Your task to perform on an android device: search for starred emails in the gmail app Image 0: 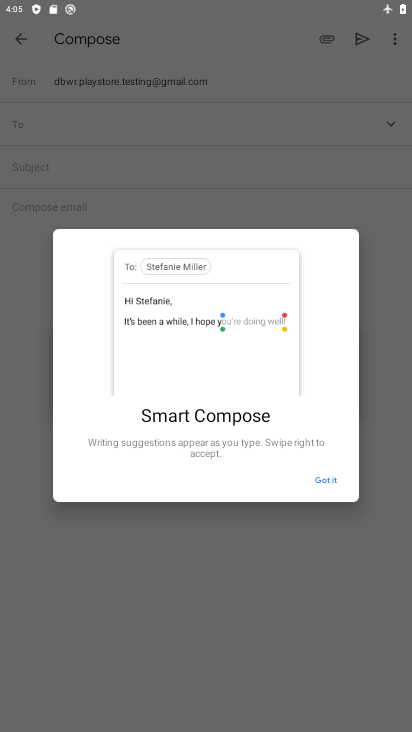
Step 0: press back button
Your task to perform on an android device: search for starred emails in the gmail app Image 1: 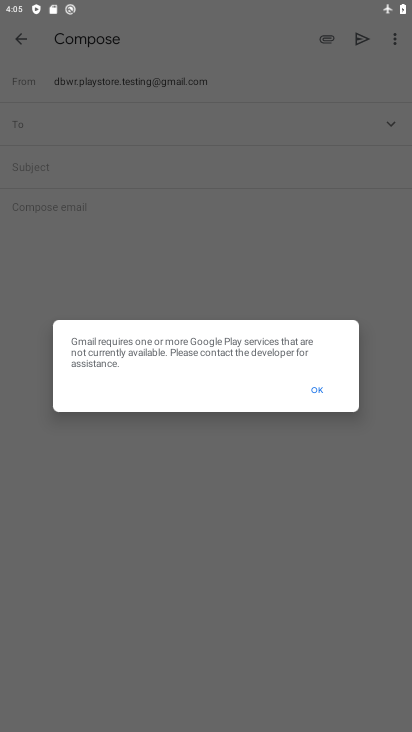
Step 1: press back button
Your task to perform on an android device: search for starred emails in the gmail app Image 2: 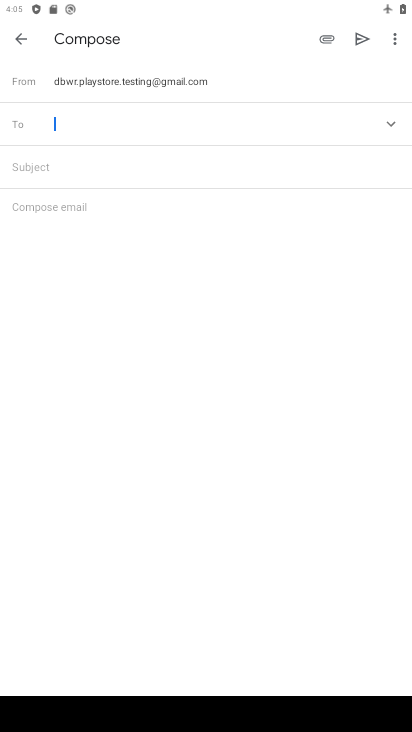
Step 2: press home button
Your task to perform on an android device: search for starred emails in the gmail app Image 3: 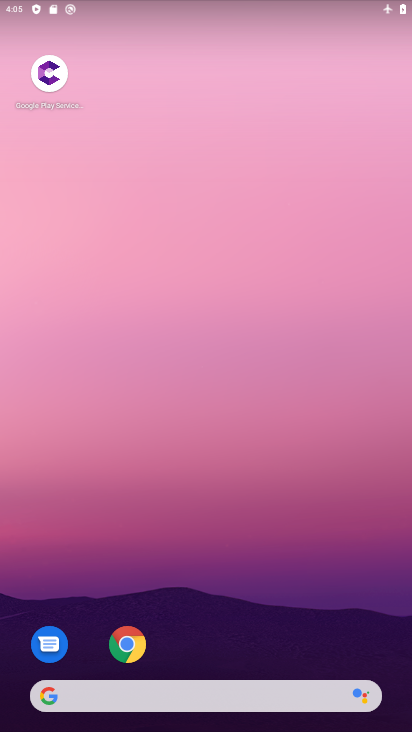
Step 3: drag from (244, 654) to (301, 109)
Your task to perform on an android device: search for starred emails in the gmail app Image 4: 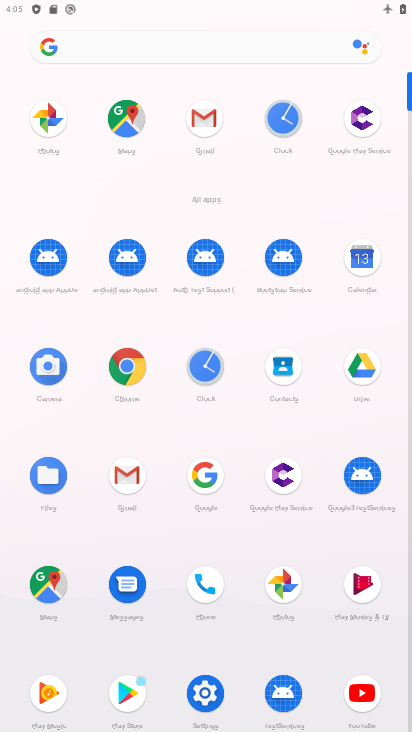
Step 4: click (197, 126)
Your task to perform on an android device: search for starred emails in the gmail app Image 5: 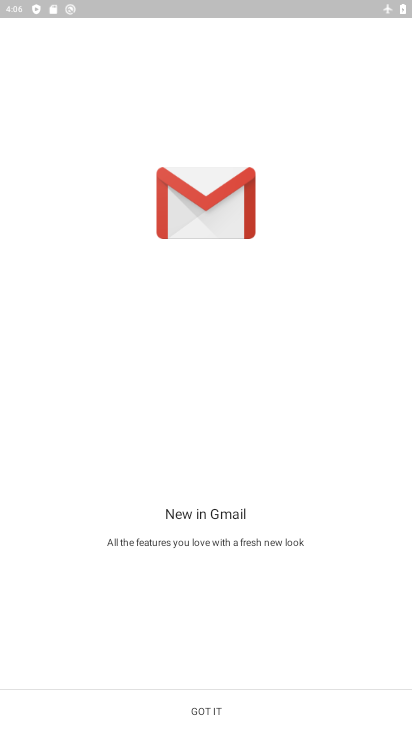
Step 5: click (209, 708)
Your task to perform on an android device: search for starred emails in the gmail app Image 6: 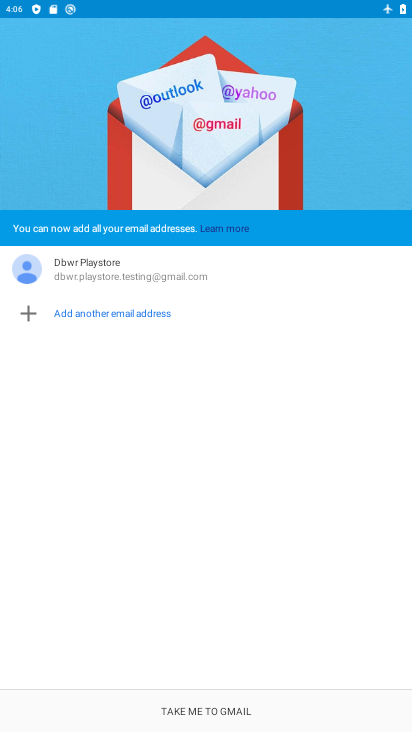
Step 6: click (210, 719)
Your task to perform on an android device: search for starred emails in the gmail app Image 7: 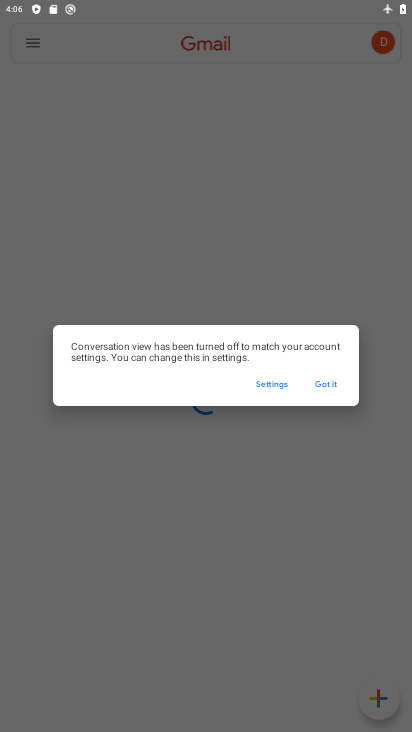
Step 7: click (312, 380)
Your task to perform on an android device: search for starred emails in the gmail app Image 8: 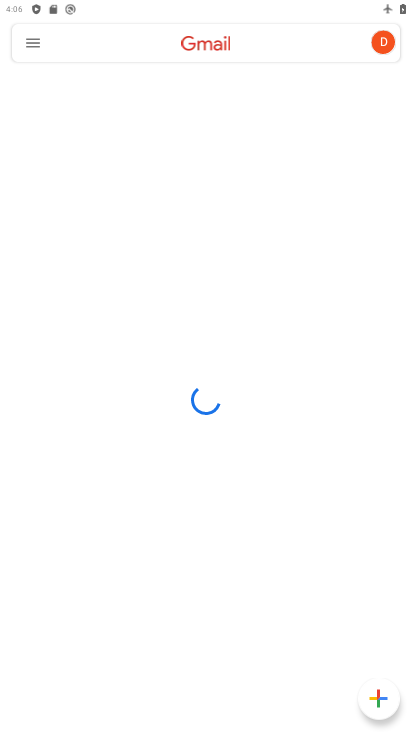
Step 8: click (31, 41)
Your task to perform on an android device: search for starred emails in the gmail app Image 9: 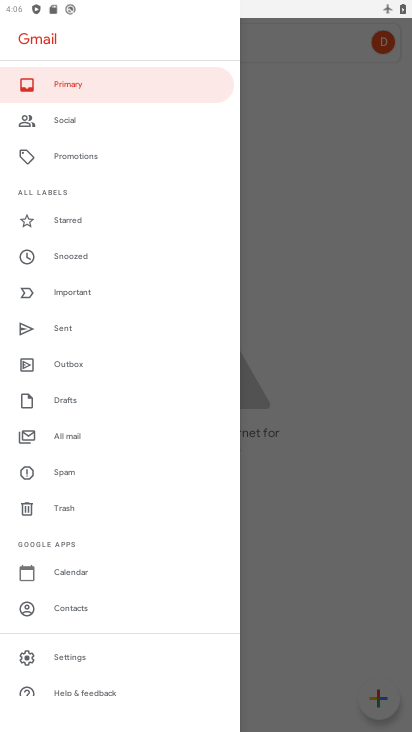
Step 9: click (66, 217)
Your task to perform on an android device: search for starred emails in the gmail app Image 10: 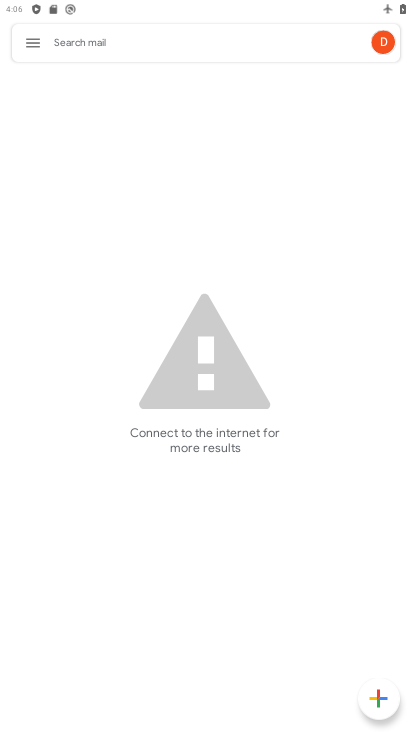
Step 10: task complete